Your task to perform on an android device: turn pop-ups on in chrome Image 0: 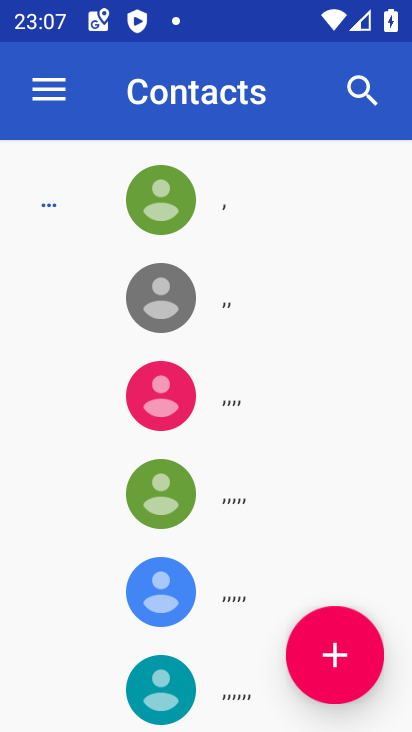
Step 0: press home button
Your task to perform on an android device: turn pop-ups on in chrome Image 1: 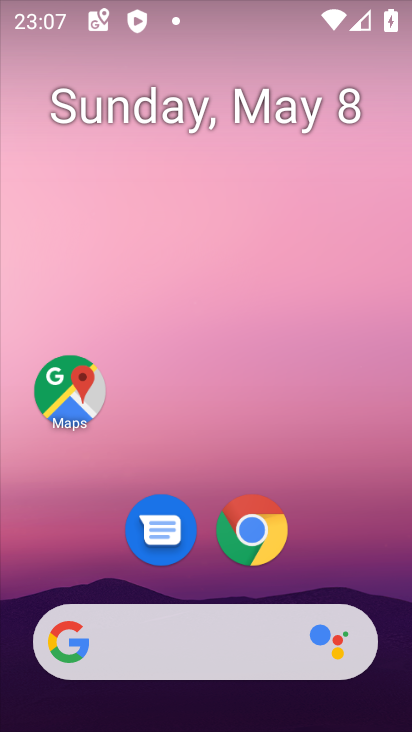
Step 1: drag from (368, 559) to (408, 103)
Your task to perform on an android device: turn pop-ups on in chrome Image 2: 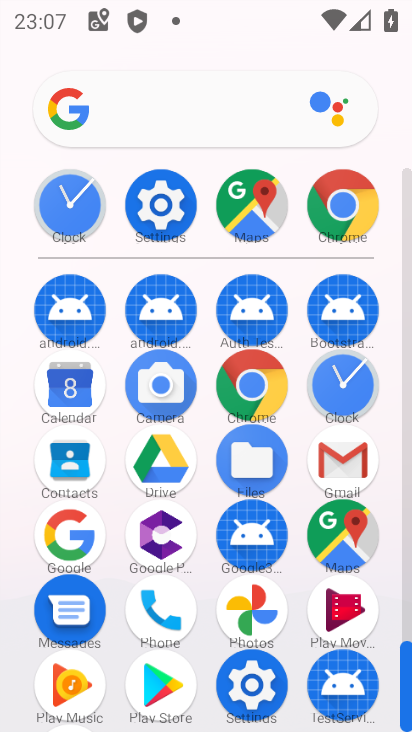
Step 2: click (256, 387)
Your task to perform on an android device: turn pop-ups on in chrome Image 3: 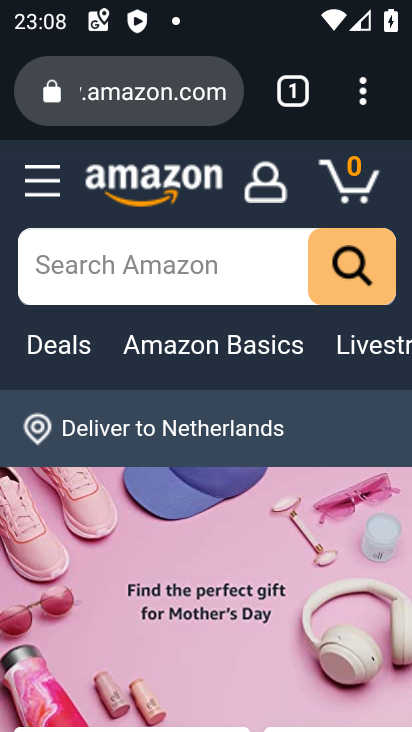
Step 3: drag from (370, 108) to (236, 557)
Your task to perform on an android device: turn pop-ups on in chrome Image 4: 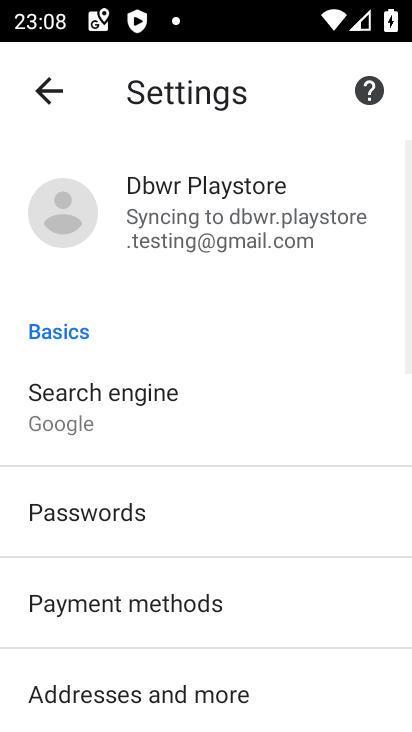
Step 4: drag from (307, 676) to (336, 260)
Your task to perform on an android device: turn pop-ups on in chrome Image 5: 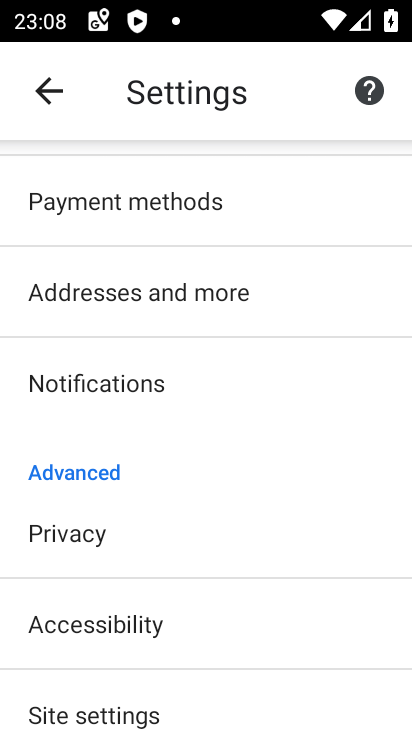
Step 5: drag from (324, 600) to (323, 288)
Your task to perform on an android device: turn pop-ups on in chrome Image 6: 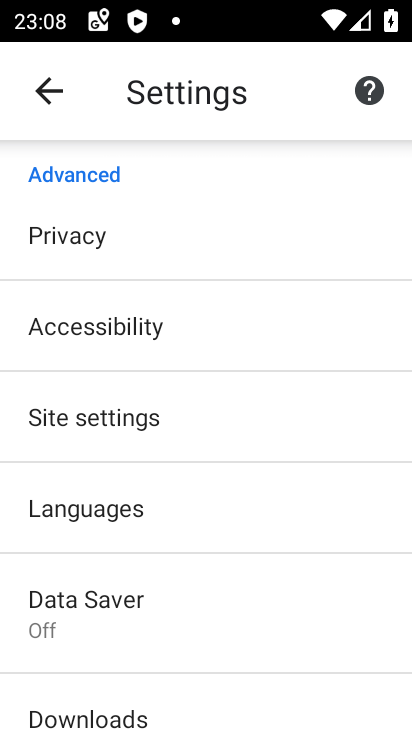
Step 6: click (279, 422)
Your task to perform on an android device: turn pop-ups on in chrome Image 7: 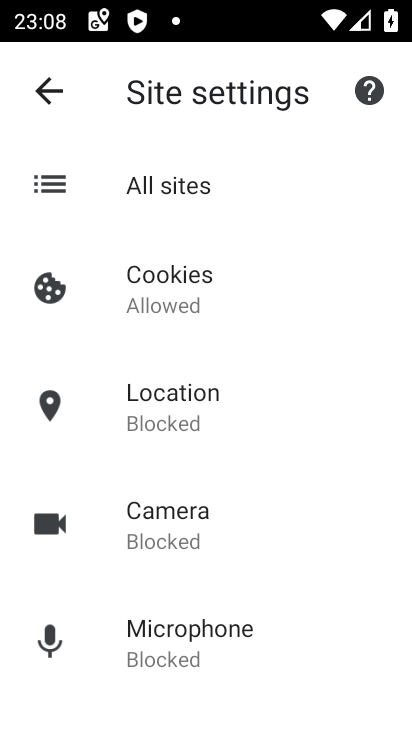
Step 7: drag from (268, 509) to (290, 197)
Your task to perform on an android device: turn pop-ups on in chrome Image 8: 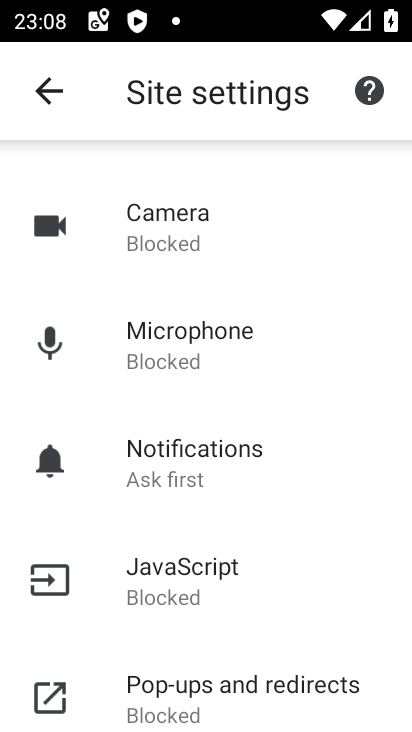
Step 8: drag from (313, 472) to (309, 298)
Your task to perform on an android device: turn pop-ups on in chrome Image 9: 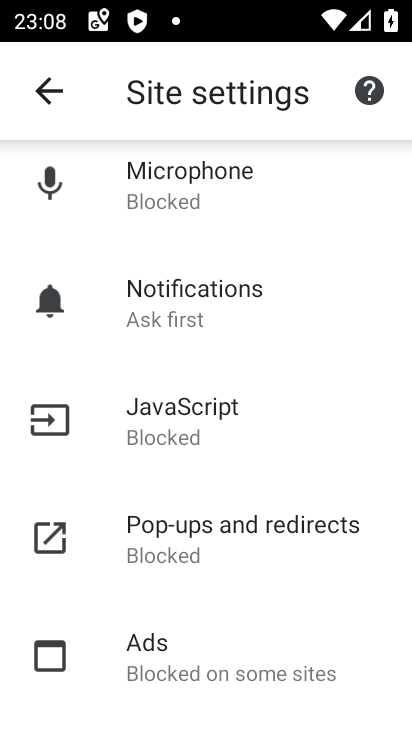
Step 9: click (217, 536)
Your task to perform on an android device: turn pop-ups on in chrome Image 10: 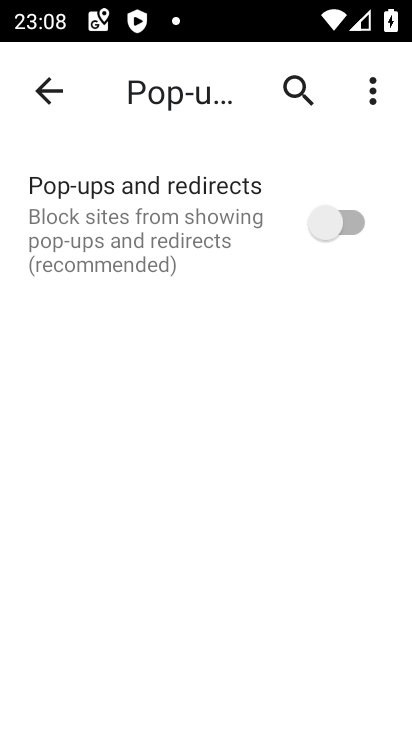
Step 10: click (353, 219)
Your task to perform on an android device: turn pop-ups on in chrome Image 11: 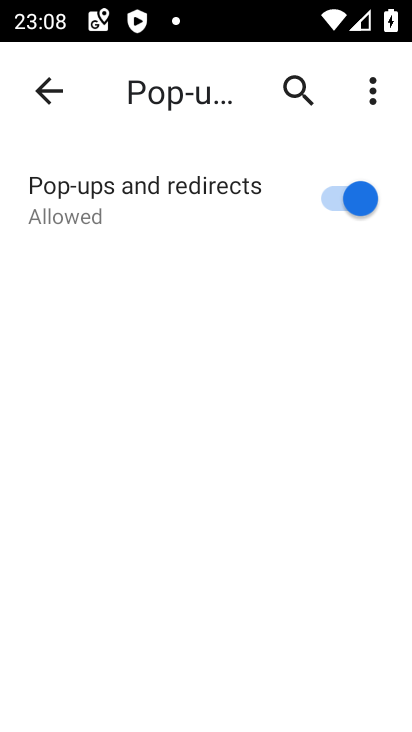
Step 11: task complete